Your task to perform on an android device: turn on location history Image 0: 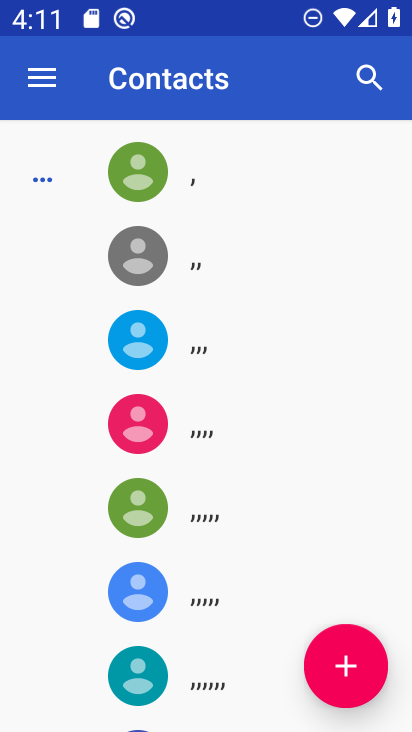
Step 0: press home button
Your task to perform on an android device: turn on location history Image 1: 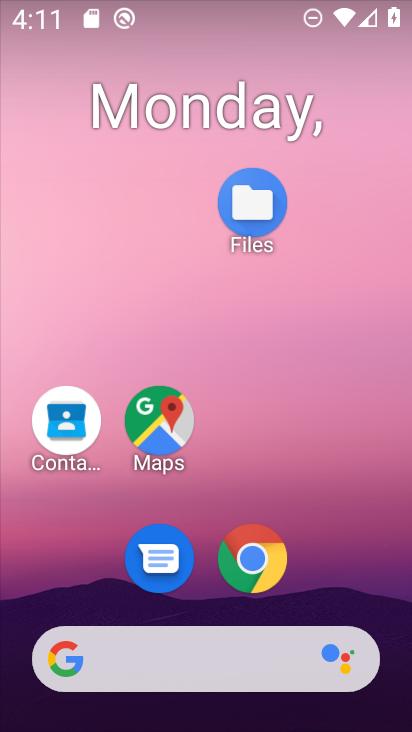
Step 1: drag from (233, 693) to (230, 242)
Your task to perform on an android device: turn on location history Image 2: 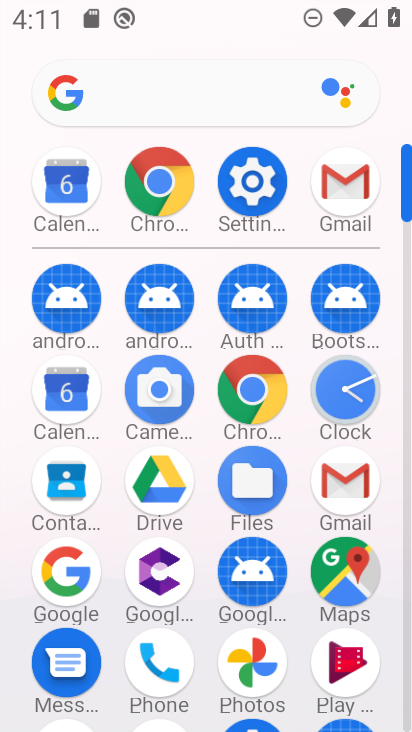
Step 2: click (259, 177)
Your task to perform on an android device: turn on location history Image 3: 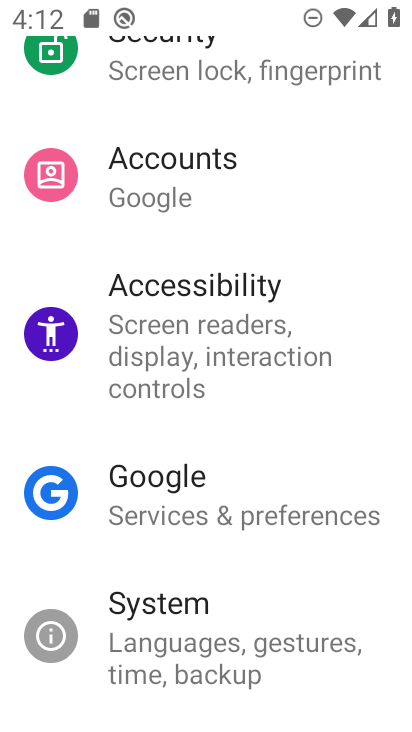
Step 3: drag from (239, 305) to (245, 601)
Your task to perform on an android device: turn on location history Image 4: 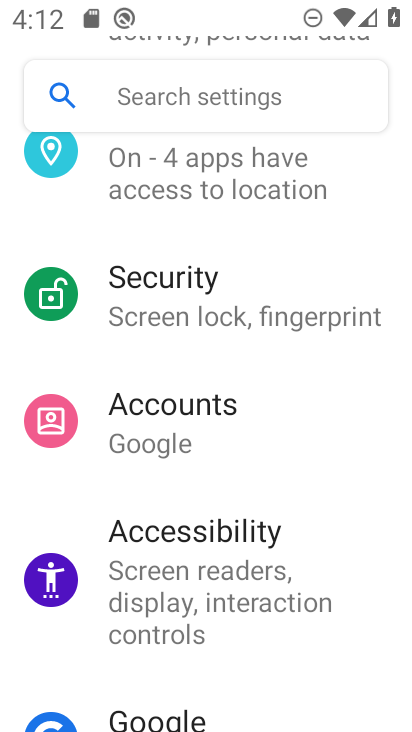
Step 4: drag from (283, 202) to (245, 624)
Your task to perform on an android device: turn on location history Image 5: 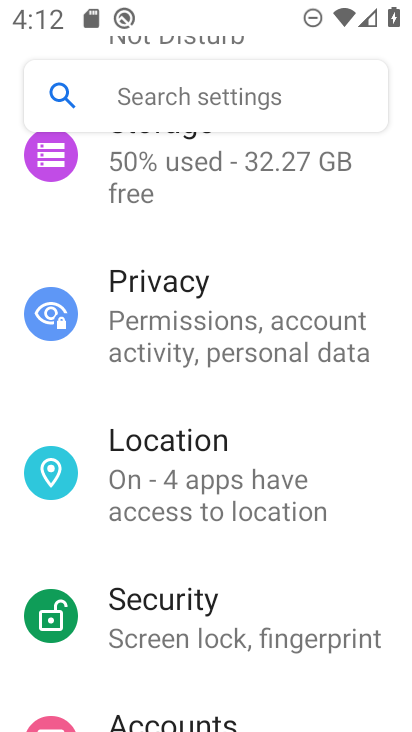
Step 5: click (229, 495)
Your task to perform on an android device: turn on location history Image 6: 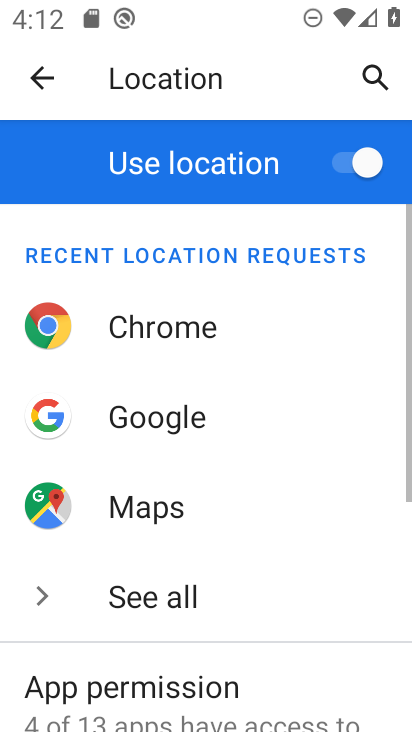
Step 6: drag from (231, 614) to (266, 336)
Your task to perform on an android device: turn on location history Image 7: 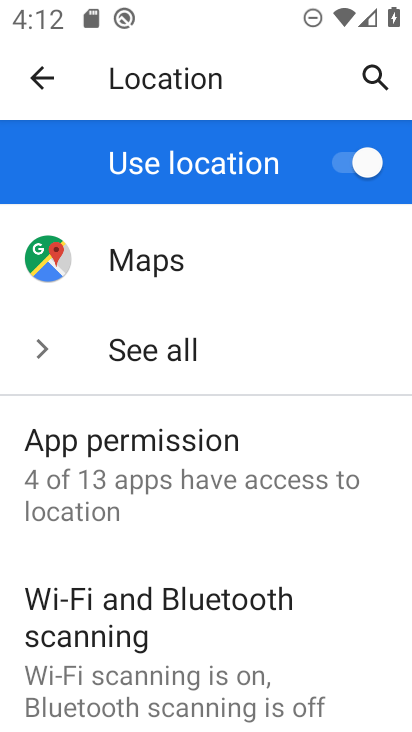
Step 7: drag from (263, 596) to (275, 375)
Your task to perform on an android device: turn on location history Image 8: 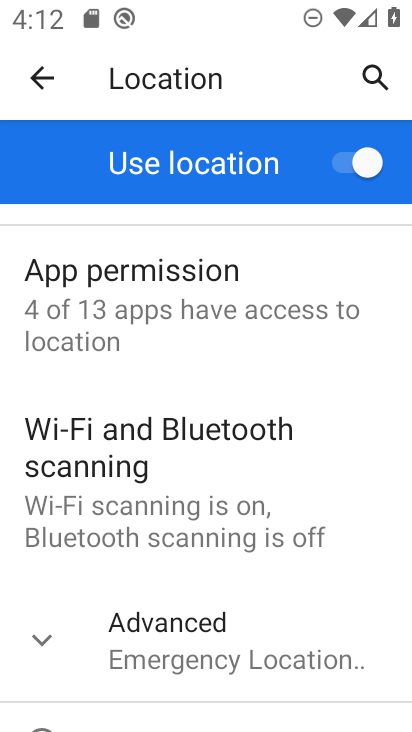
Step 8: drag from (243, 617) to (265, 376)
Your task to perform on an android device: turn on location history Image 9: 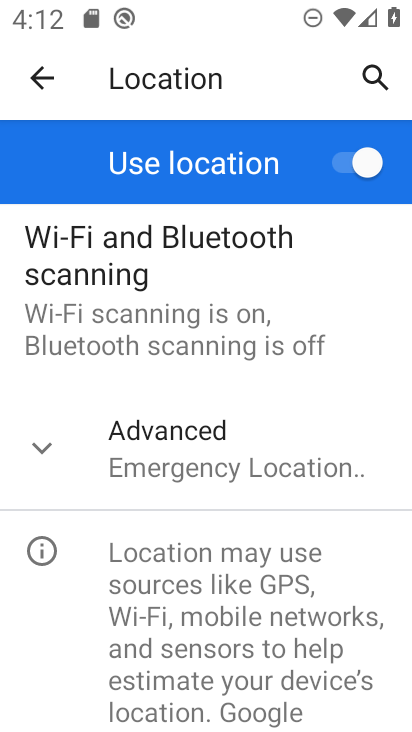
Step 9: click (254, 464)
Your task to perform on an android device: turn on location history Image 10: 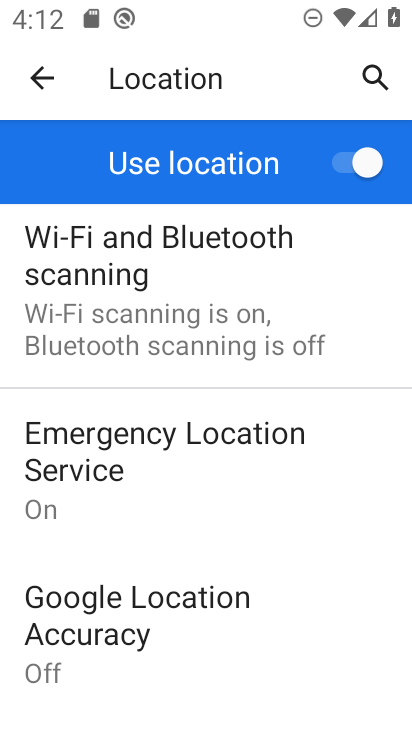
Step 10: drag from (212, 620) to (254, 366)
Your task to perform on an android device: turn on location history Image 11: 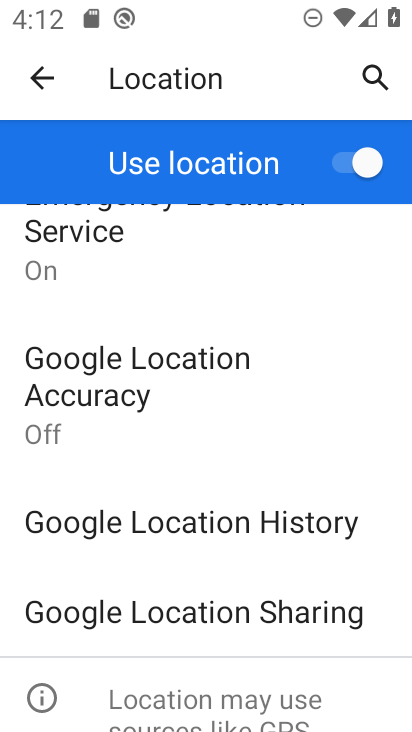
Step 11: click (255, 518)
Your task to perform on an android device: turn on location history Image 12: 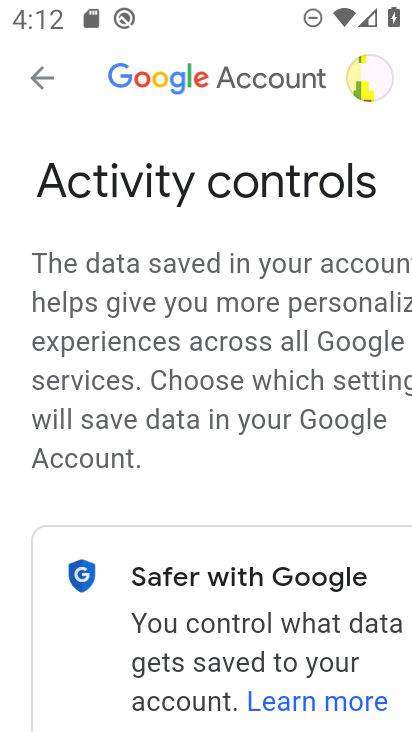
Step 12: drag from (301, 656) to (109, 183)
Your task to perform on an android device: turn on location history Image 13: 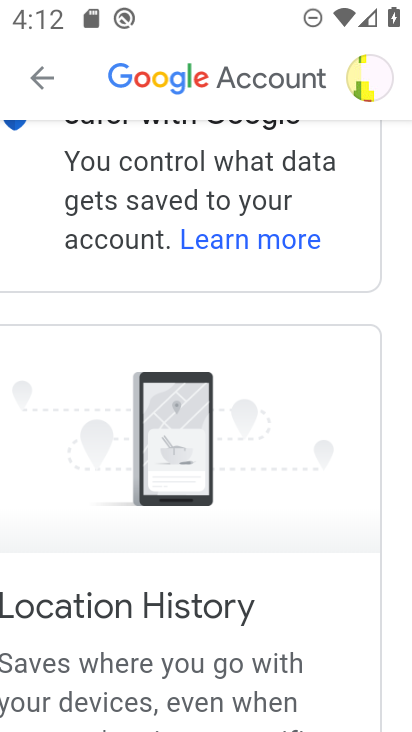
Step 13: click (221, 233)
Your task to perform on an android device: turn on location history Image 14: 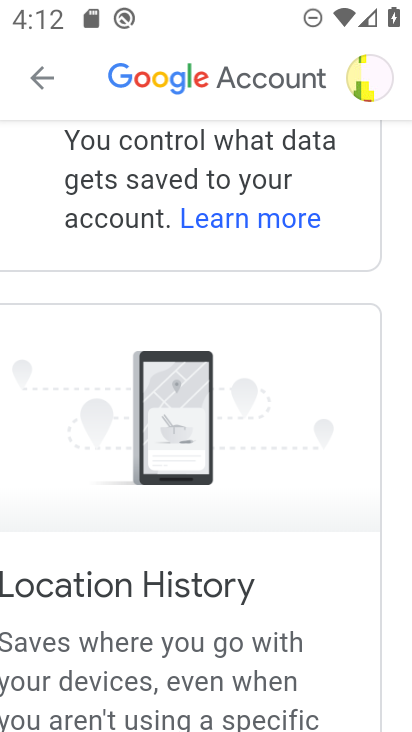
Step 14: drag from (192, 605) to (286, 203)
Your task to perform on an android device: turn on location history Image 15: 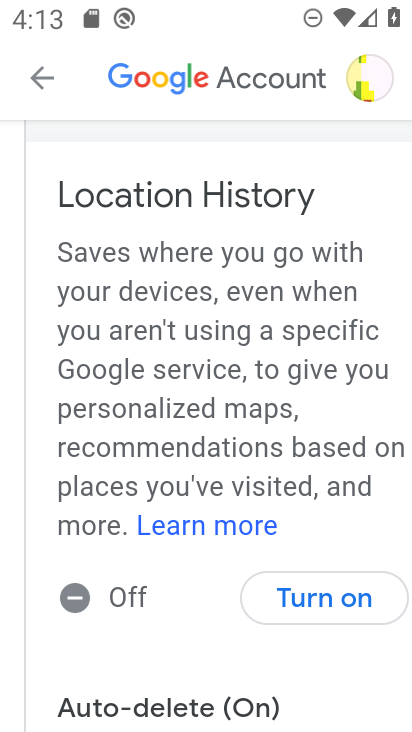
Step 15: click (306, 601)
Your task to perform on an android device: turn on location history Image 16: 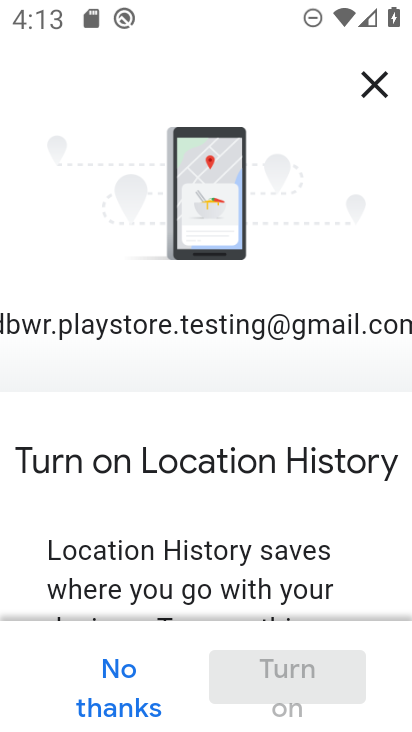
Step 16: drag from (261, 498) to (286, 64)
Your task to perform on an android device: turn on location history Image 17: 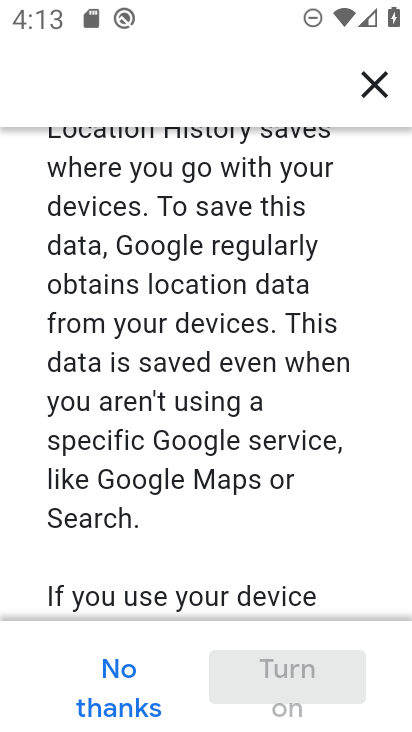
Step 17: drag from (240, 478) to (252, 1)
Your task to perform on an android device: turn on location history Image 18: 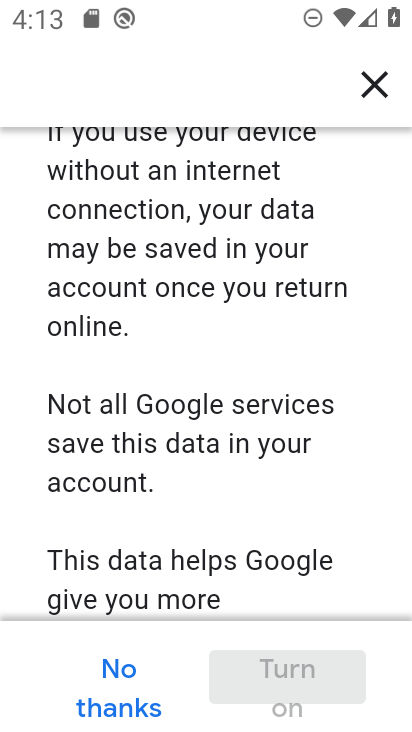
Step 18: drag from (235, 512) to (270, 4)
Your task to perform on an android device: turn on location history Image 19: 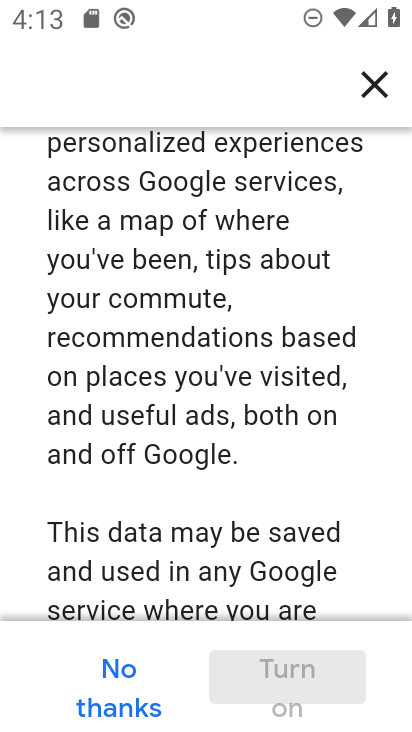
Step 19: drag from (284, 510) to (296, 8)
Your task to perform on an android device: turn on location history Image 20: 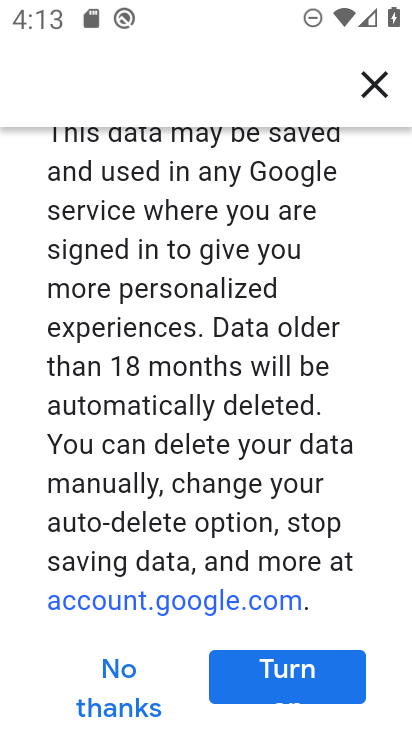
Step 20: drag from (234, 490) to (238, 149)
Your task to perform on an android device: turn on location history Image 21: 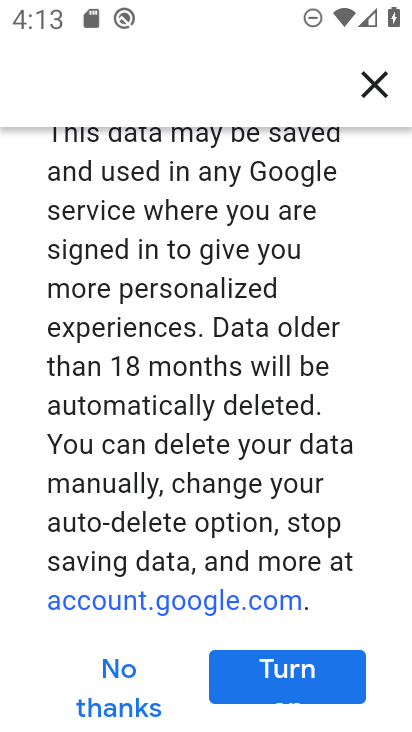
Step 21: click (293, 667)
Your task to perform on an android device: turn on location history Image 22: 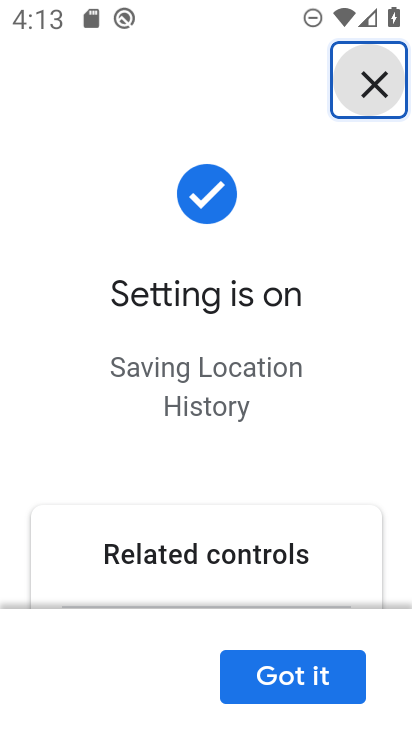
Step 22: click (305, 675)
Your task to perform on an android device: turn on location history Image 23: 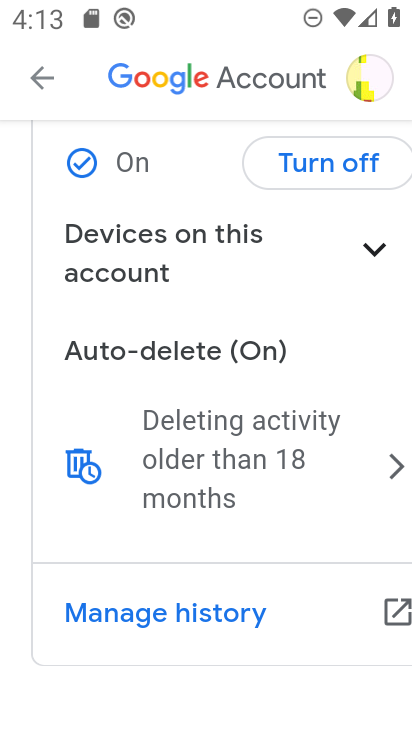
Step 23: task complete